Your task to perform on an android device: turn off improve location accuracy Image 0: 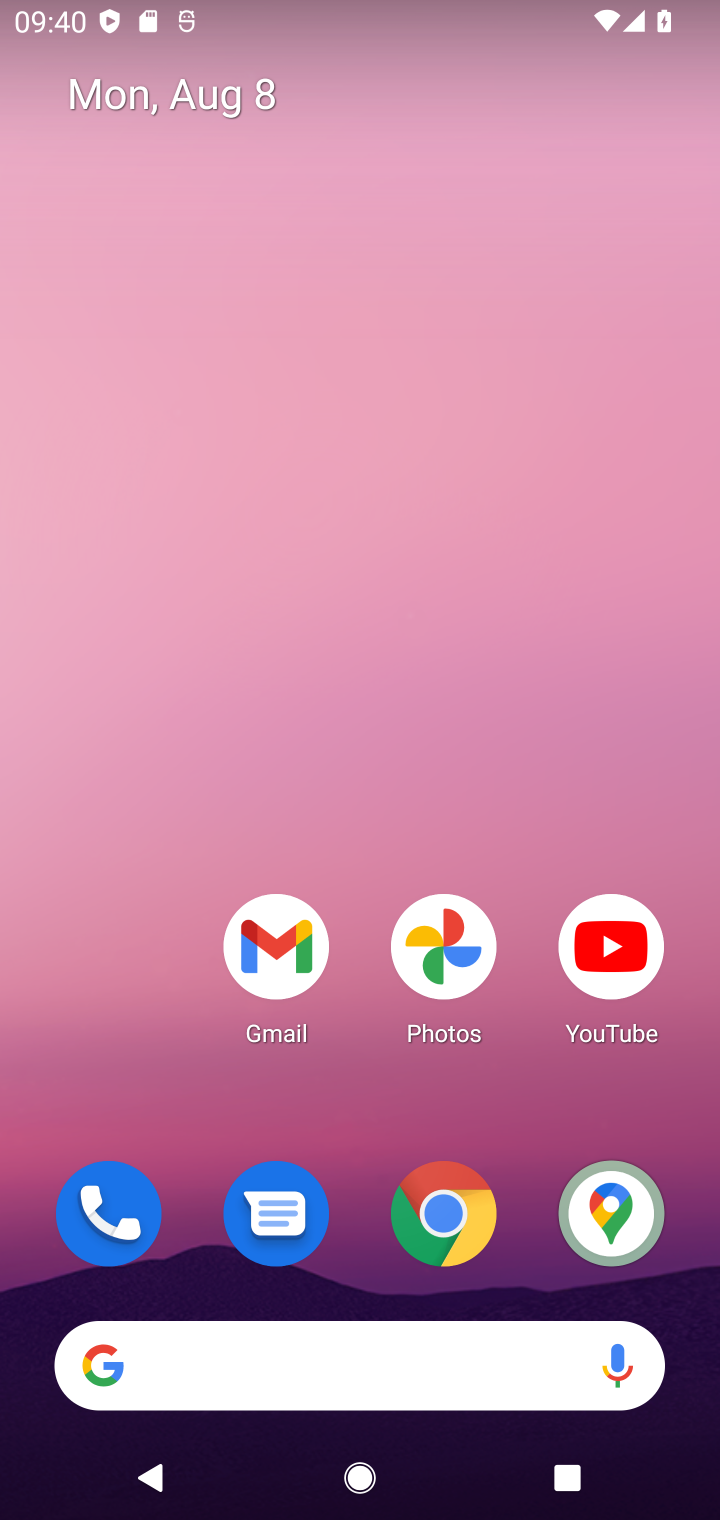
Step 0: drag from (356, 875) to (385, 339)
Your task to perform on an android device: turn off improve location accuracy Image 1: 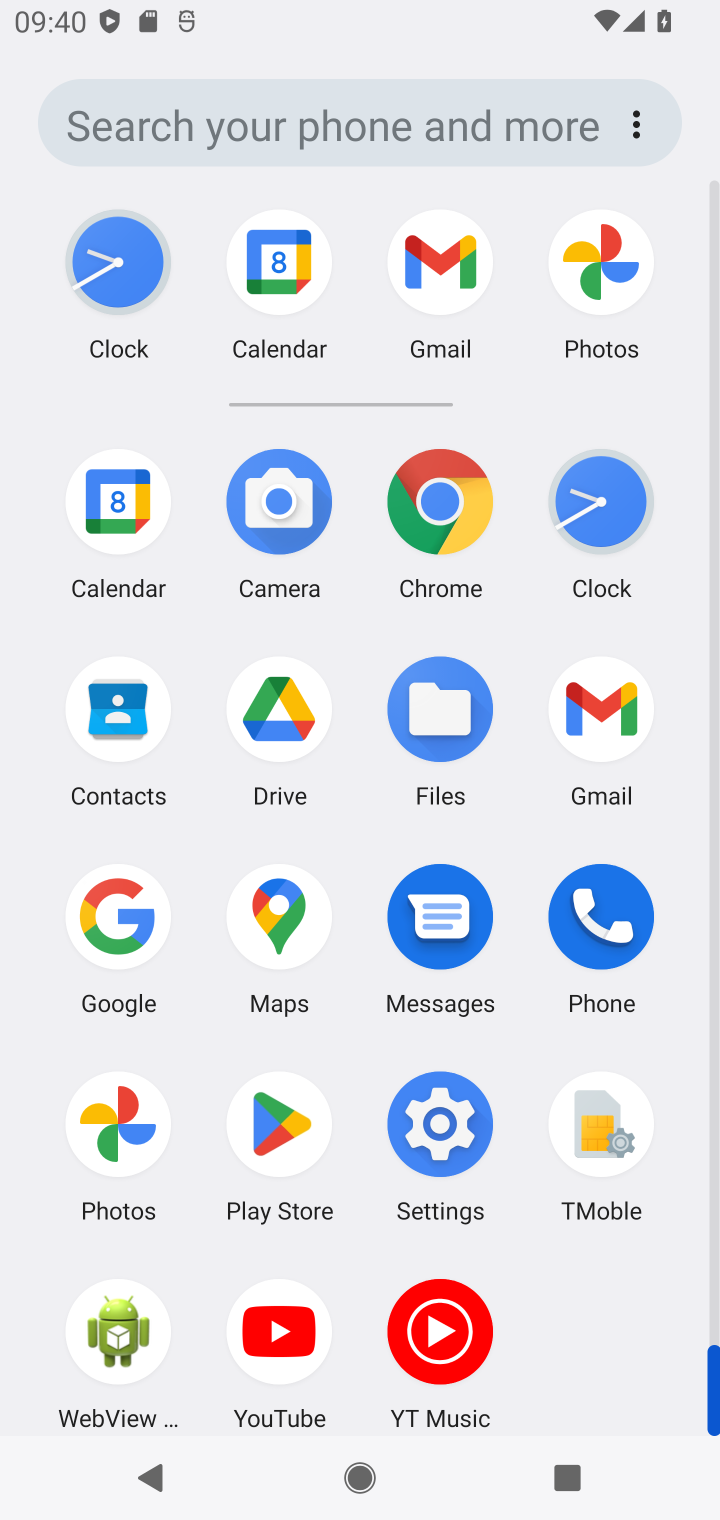
Step 1: click (449, 1139)
Your task to perform on an android device: turn off improve location accuracy Image 2: 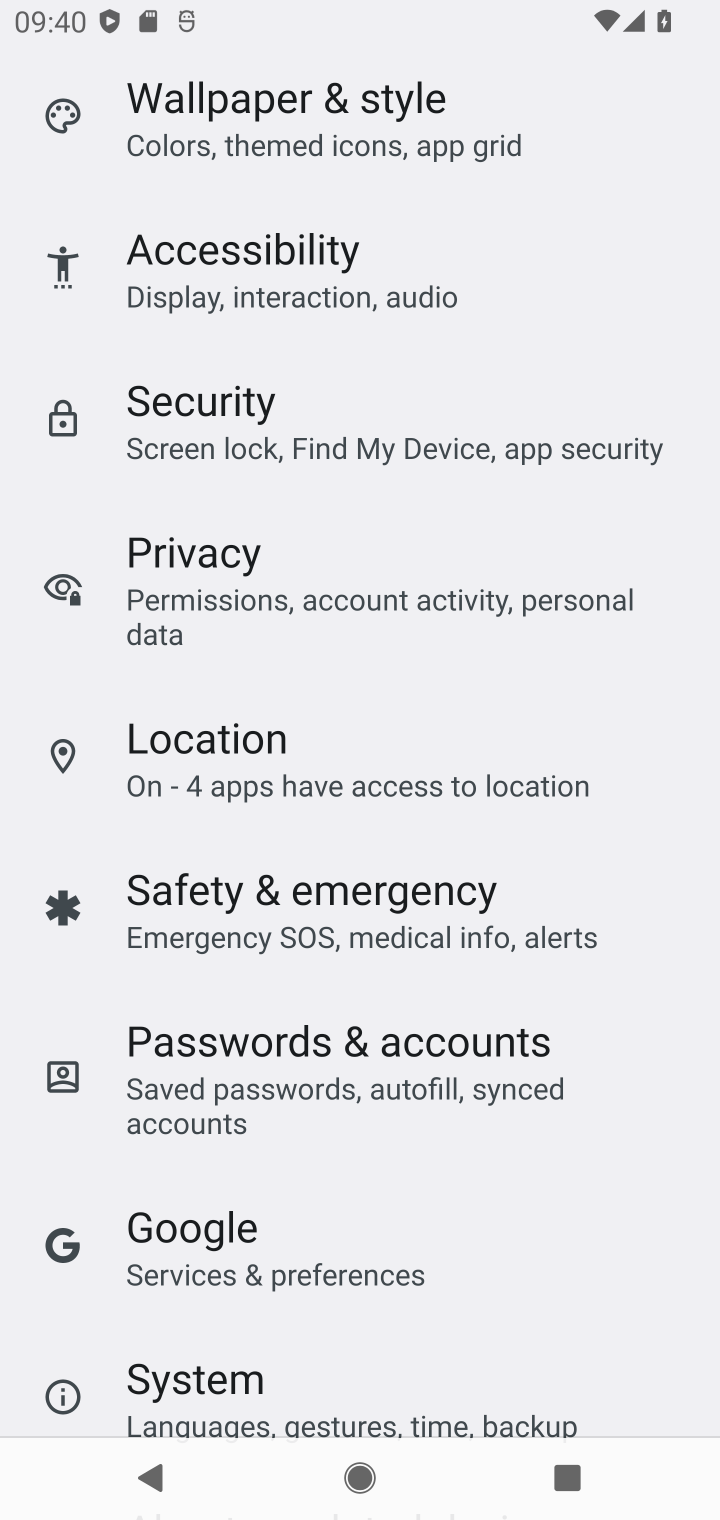
Step 2: drag from (400, 1016) to (347, 213)
Your task to perform on an android device: turn off improve location accuracy Image 3: 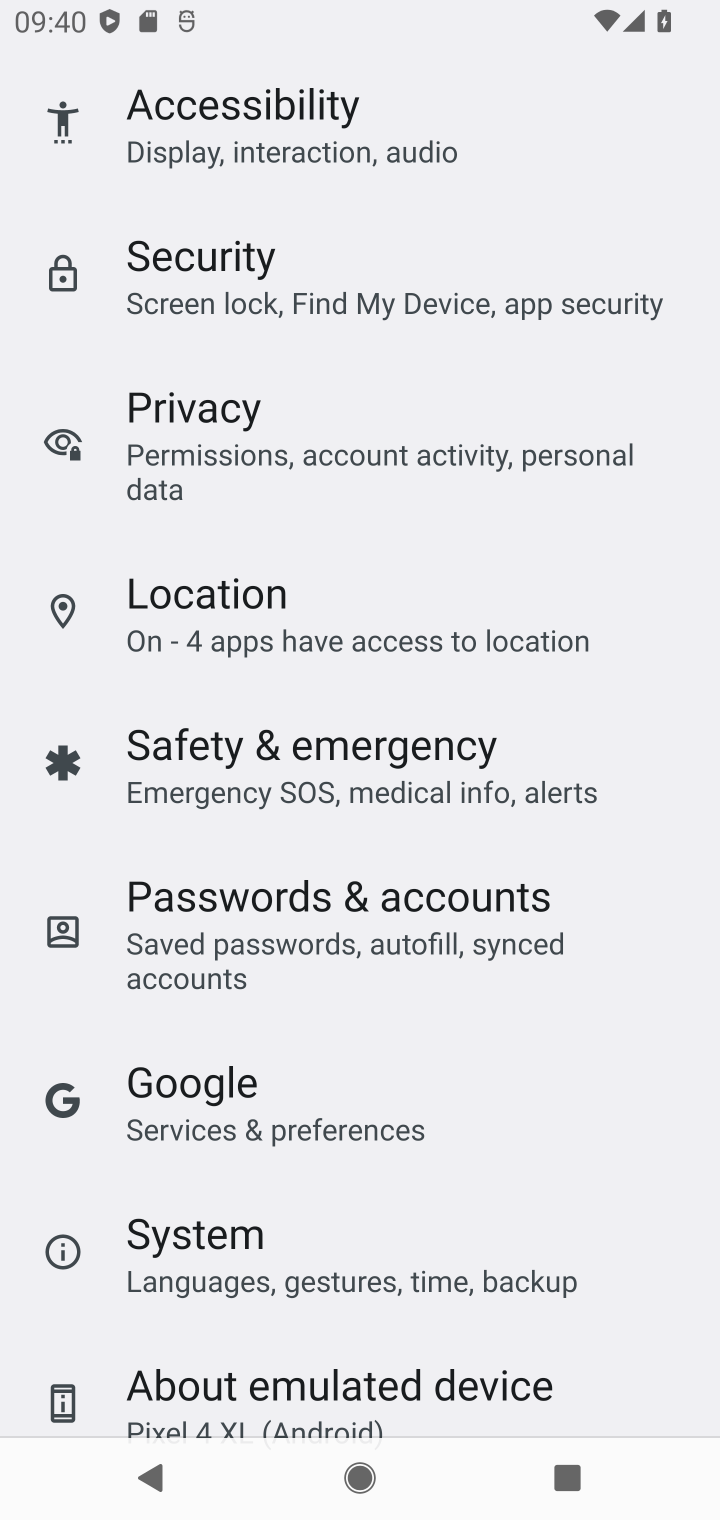
Step 3: drag from (361, 1186) to (356, 259)
Your task to perform on an android device: turn off improve location accuracy Image 4: 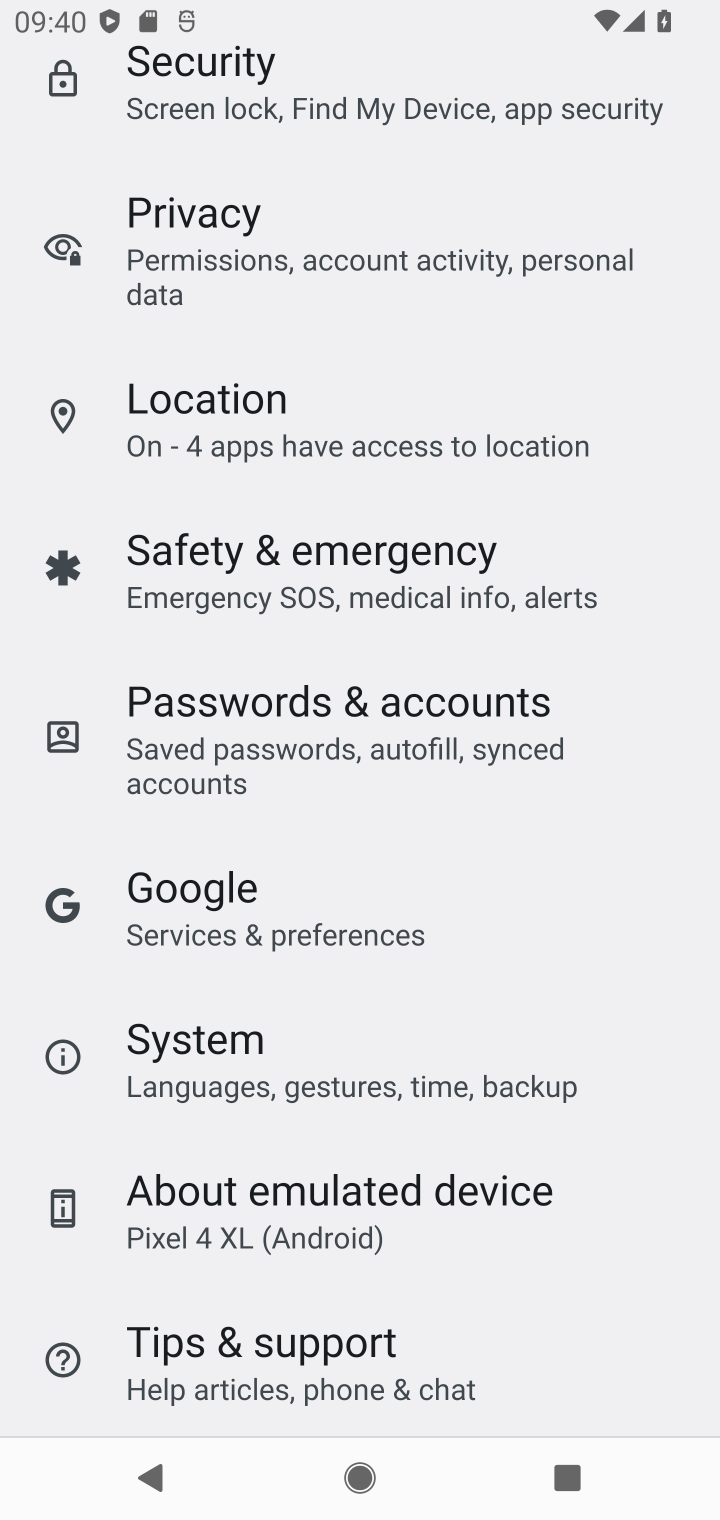
Step 4: click (427, 404)
Your task to perform on an android device: turn off improve location accuracy Image 5: 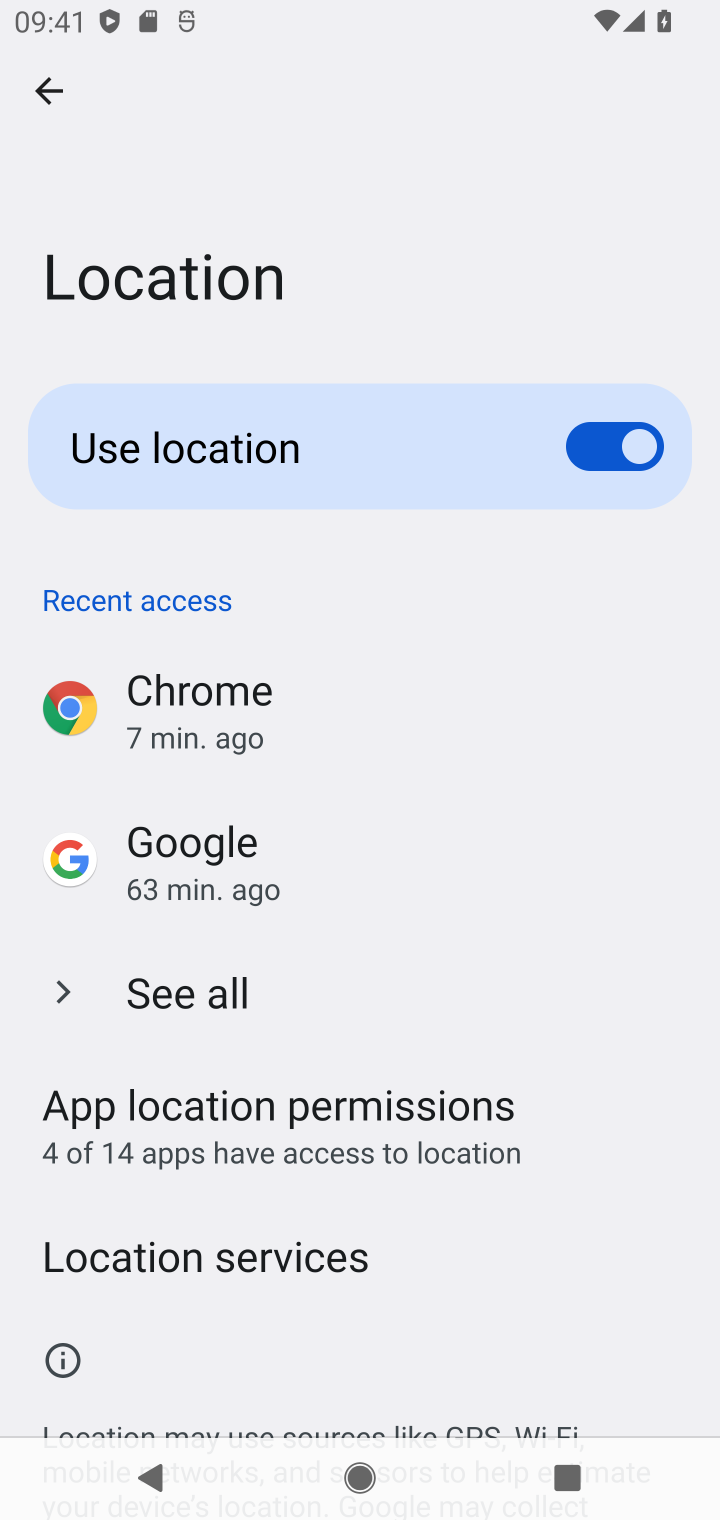
Step 5: click (296, 1267)
Your task to perform on an android device: turn off improve location accuracy Image 6: 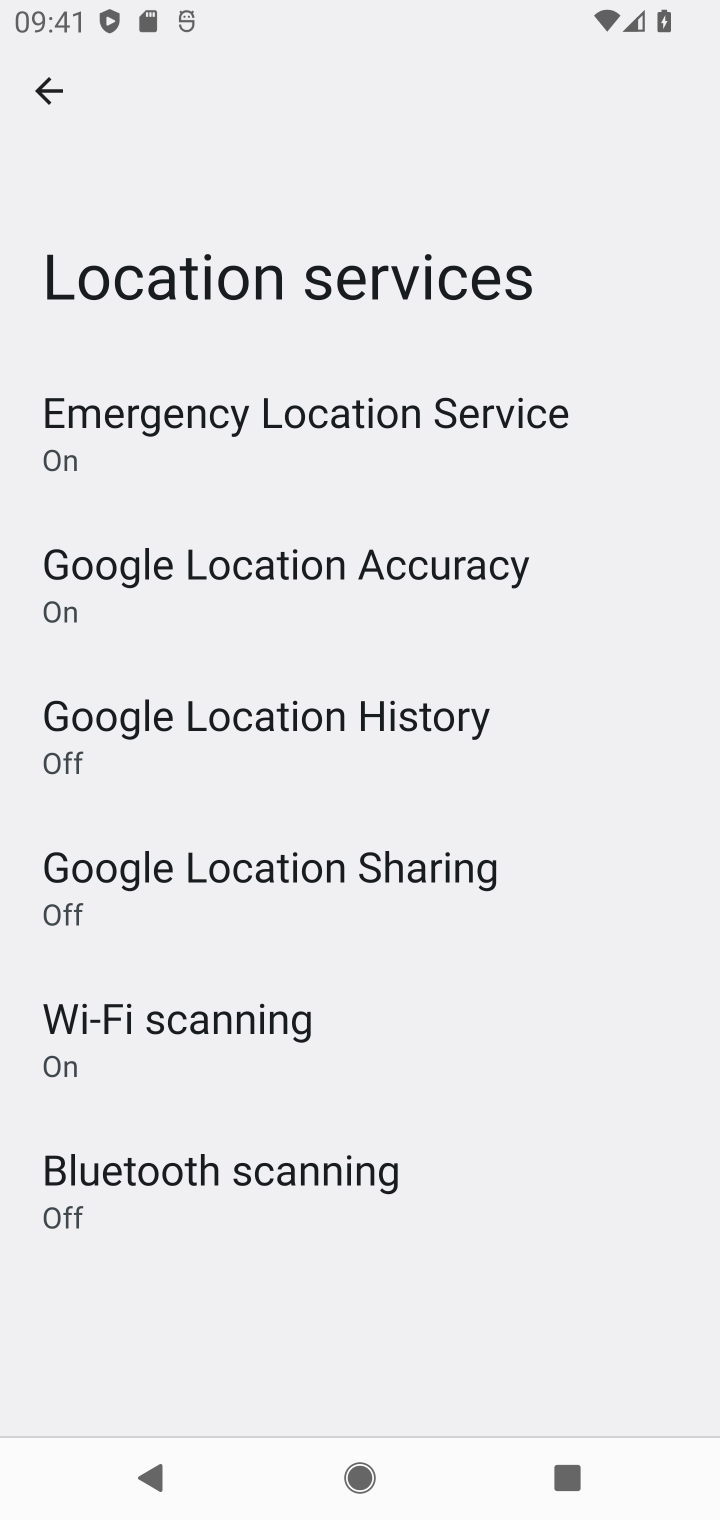
Step 6: click (432, 592)
Your task to perform on an android device: turn off improve location accuracy Image 7: 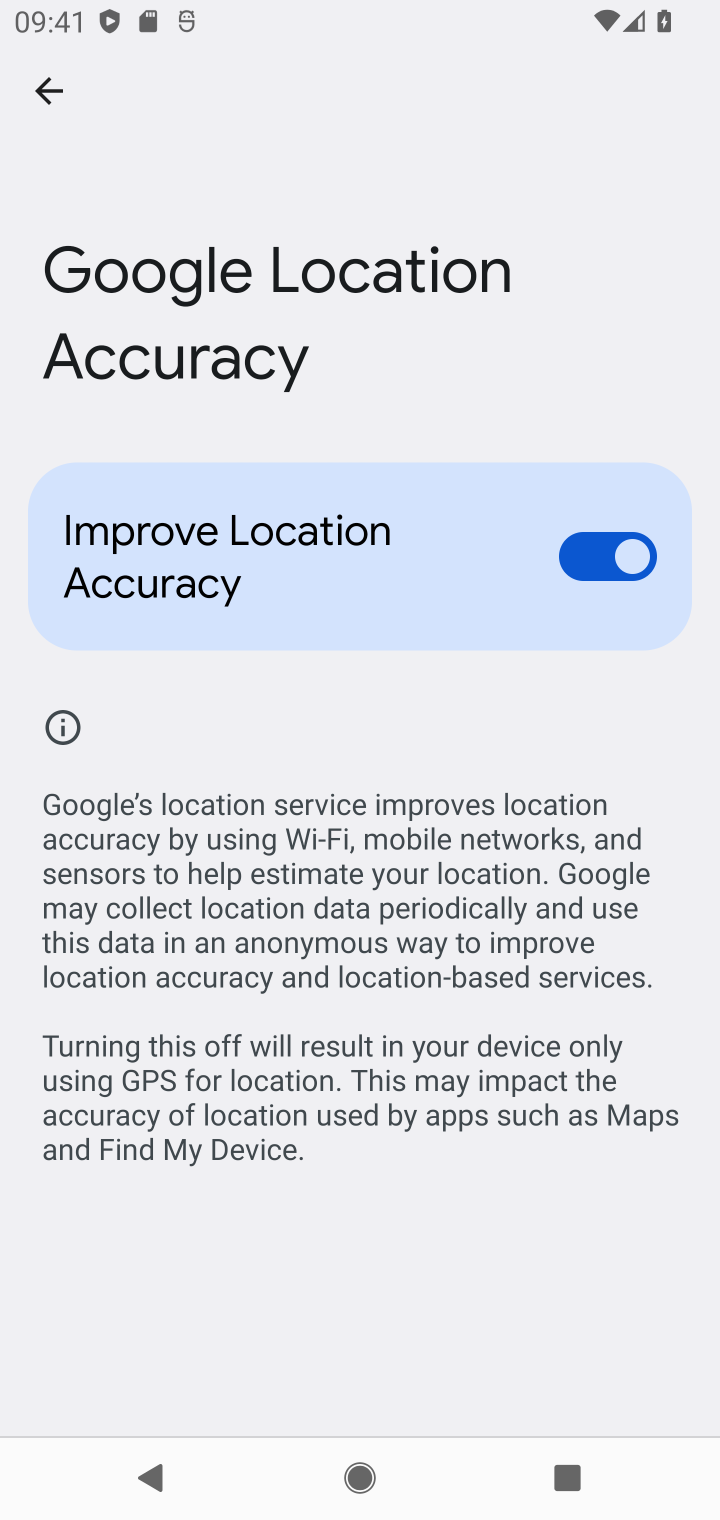
Step 7: click (606, 574)
Your task to perform on an android device: turn off improve location accuracy Image 8: 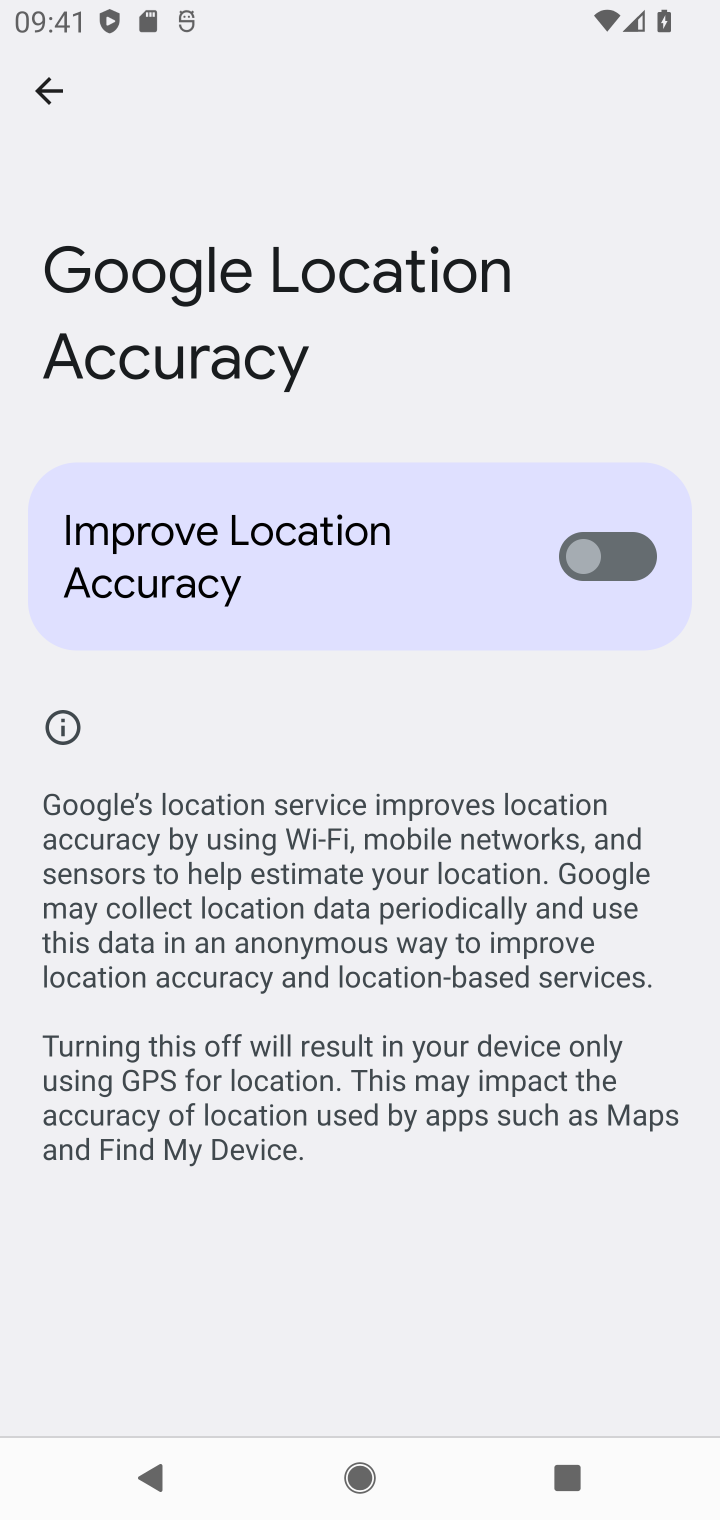
Step 8: task complete